Your task to perform on an android device: Go to Amazon Image 0: 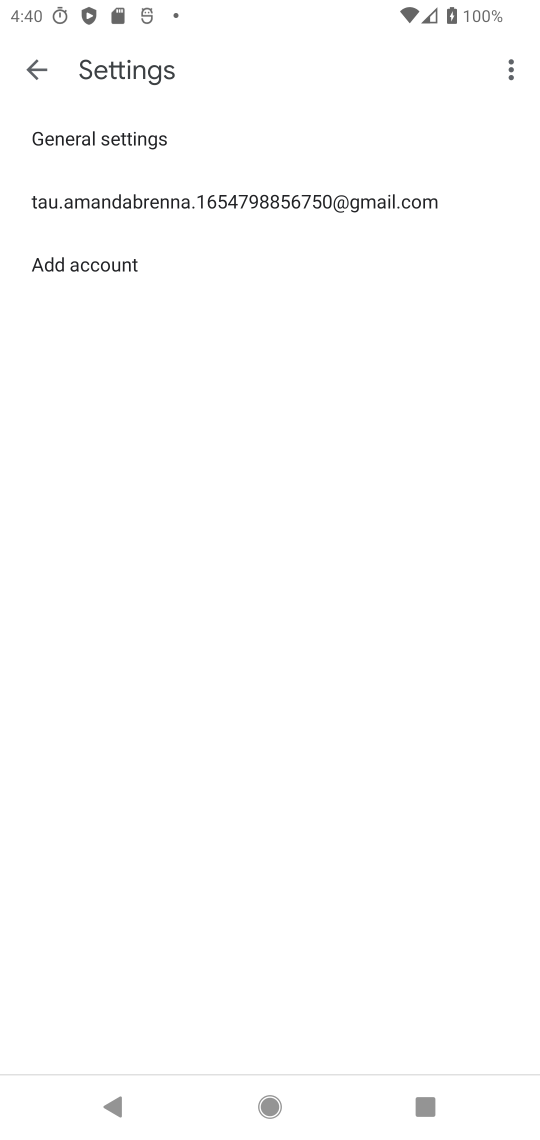
Step 0: press home button
Your task to perform on an android device: Go to Amazon Image 1: 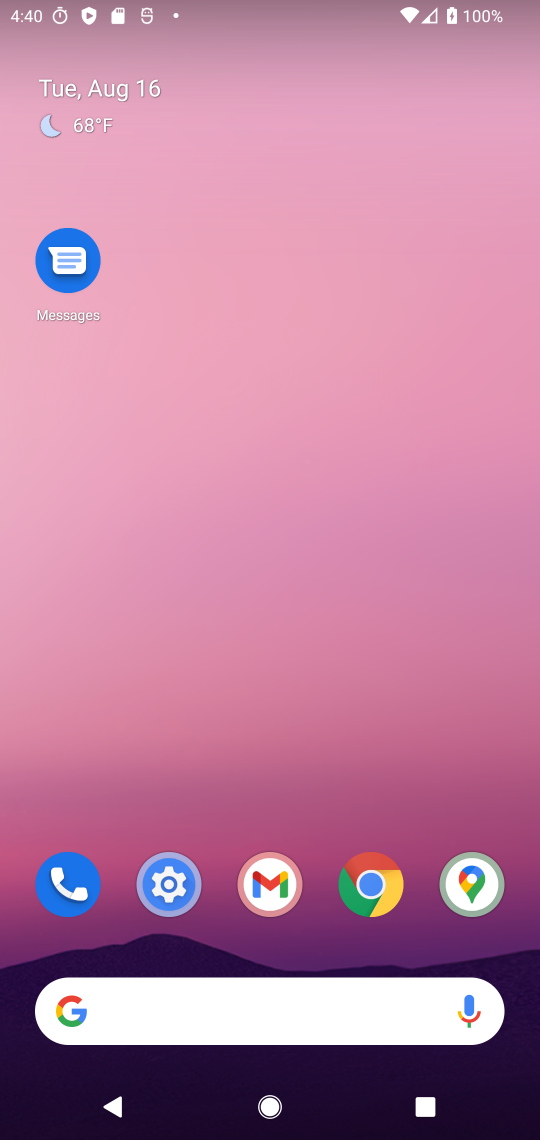
Step 1: click (183, 995)
Your task to perform on an android device: Go to Amazon Image 2: 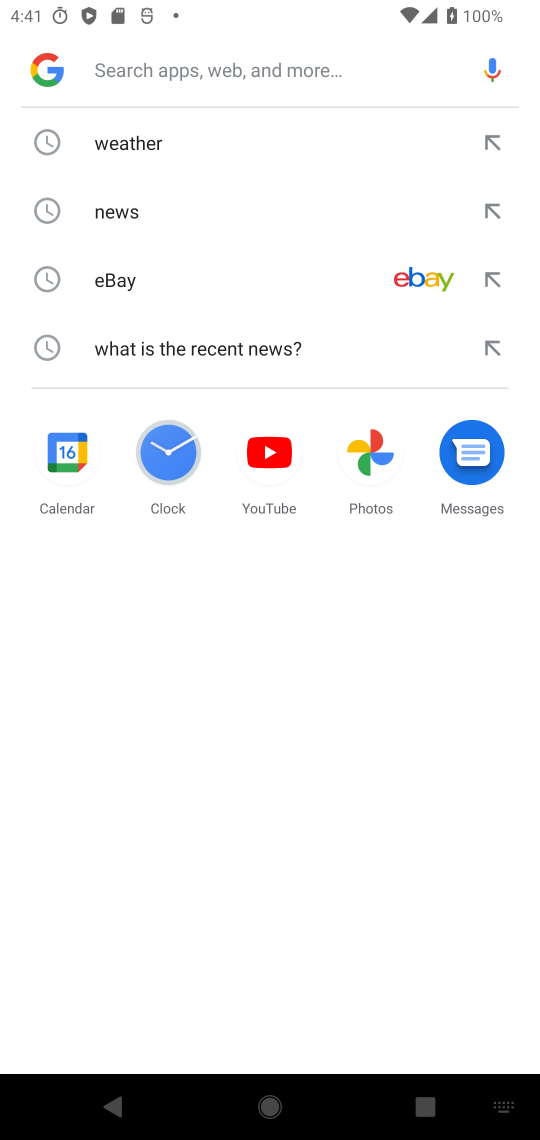
Step 2: type "Amazon"
Your task to perform on an android device: Go to Amazon Image 3: 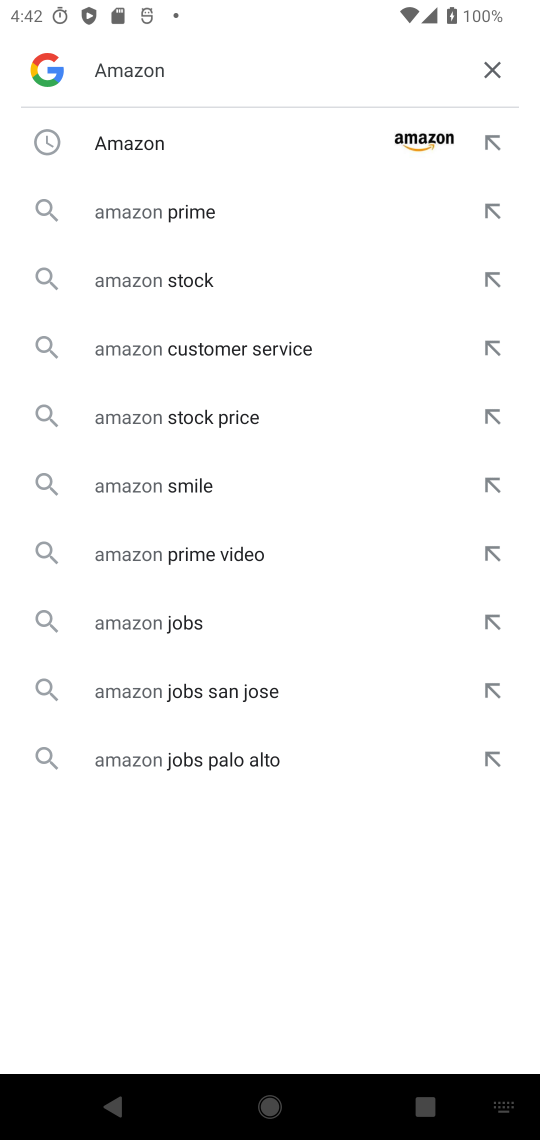
Step 3: click (141, 143)
Your task to perform on an android device: Go to Amazon Image 4: 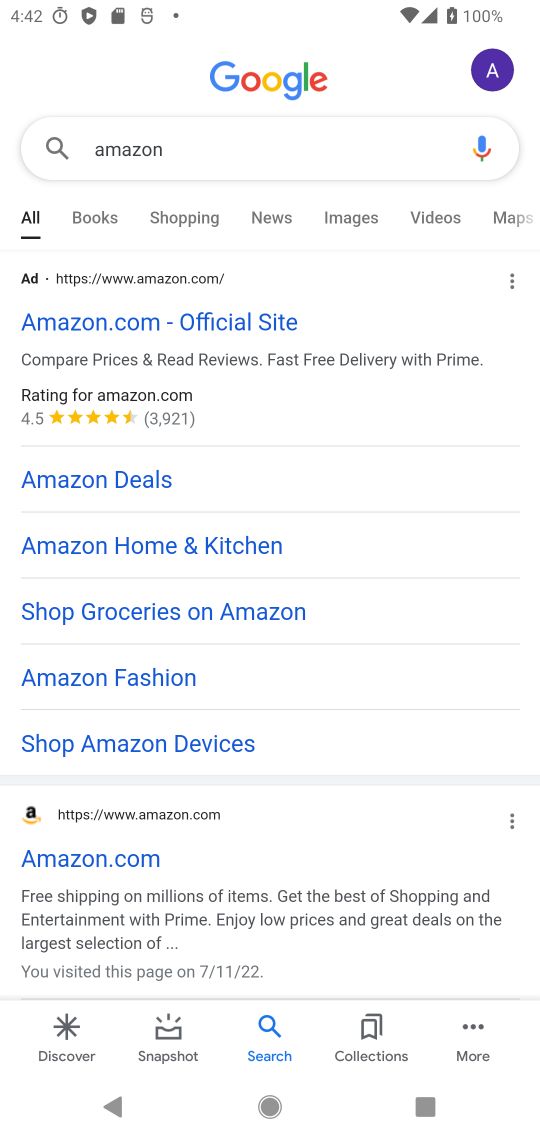
Step 4: task complete